Your task to perform on an android device: Open Google Image 0: 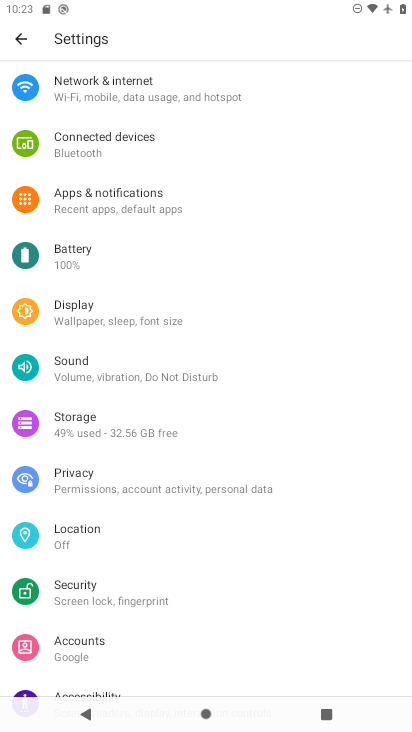
Step 0: press home button
Your task to perform on an android device: Open Google Image 1: 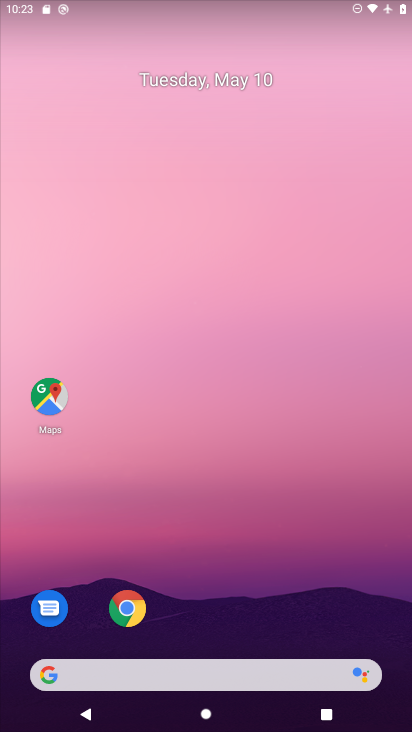
Step 1: drag from (234, 605) to (236, 201)
Your task to perform on an android device: Open Google Image 2: 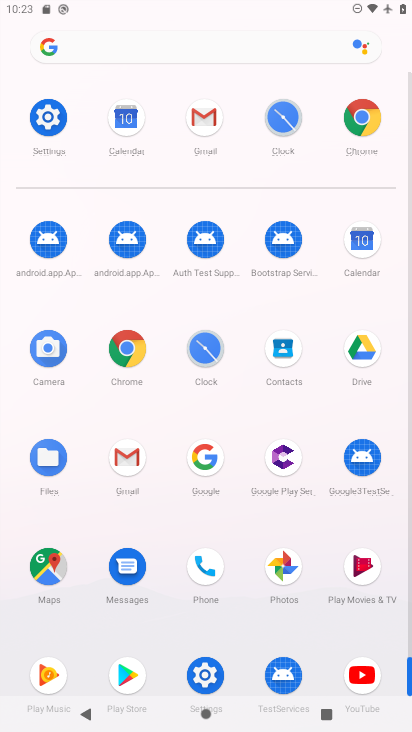
Step 2: click (200, 451)
Your task to perform on an android device: Open Google Image 3: 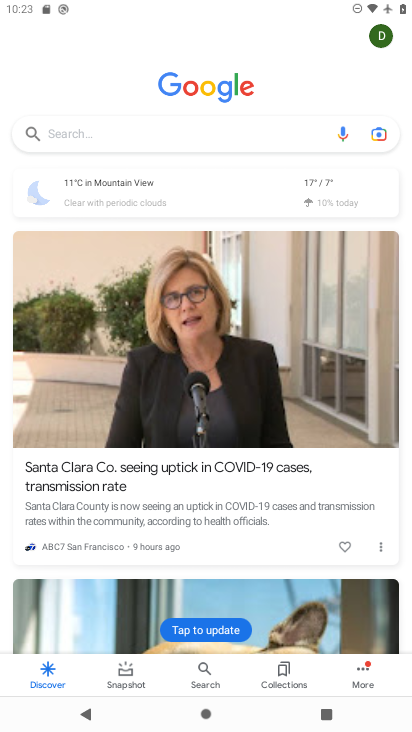
Step 3: task complete